Your task to perform on an android device: uninstall "Speedtest by Ookla" Image 0: 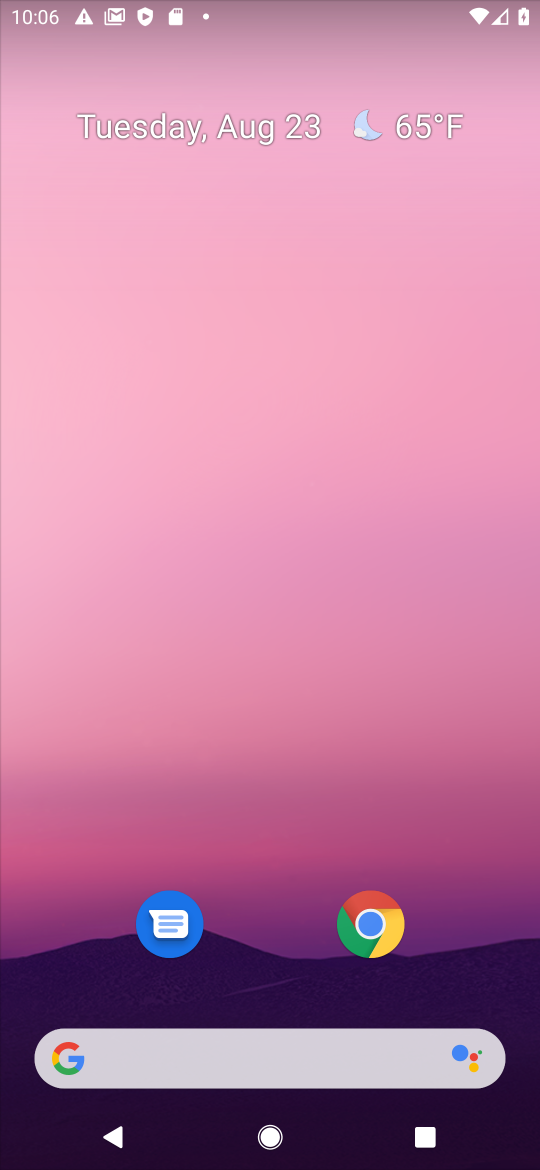
Step 0: drag from (264, 1080) to (146, 27)
Your task to perform on an android device: uninstall "Speedtest by Ookla" Image 1: 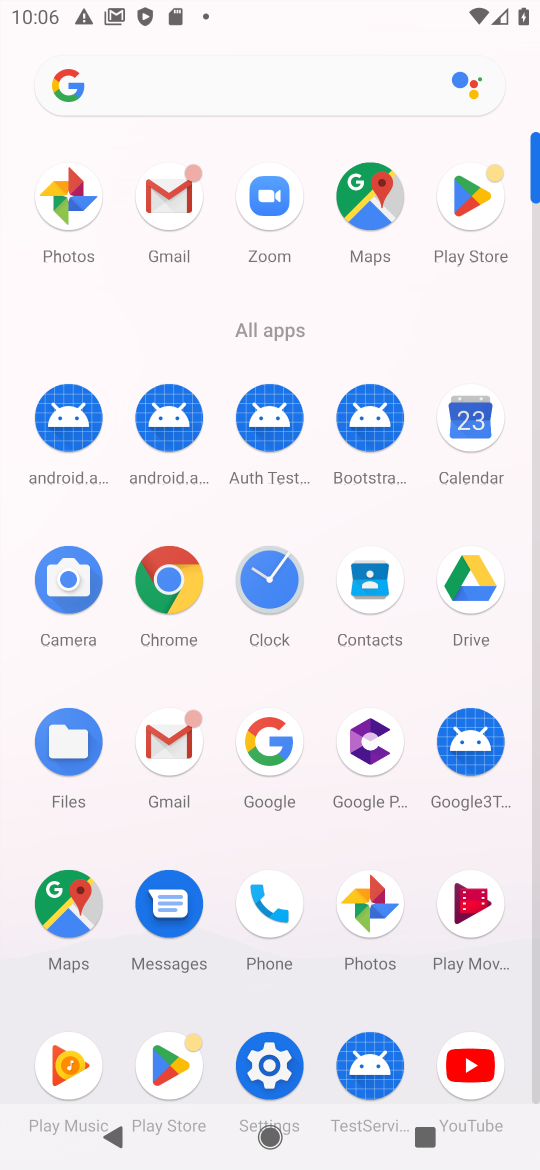
Step 1: click (468, 210)
Your task to perform on an android device: uninstall "Speedtest by Ookla" Image 2: 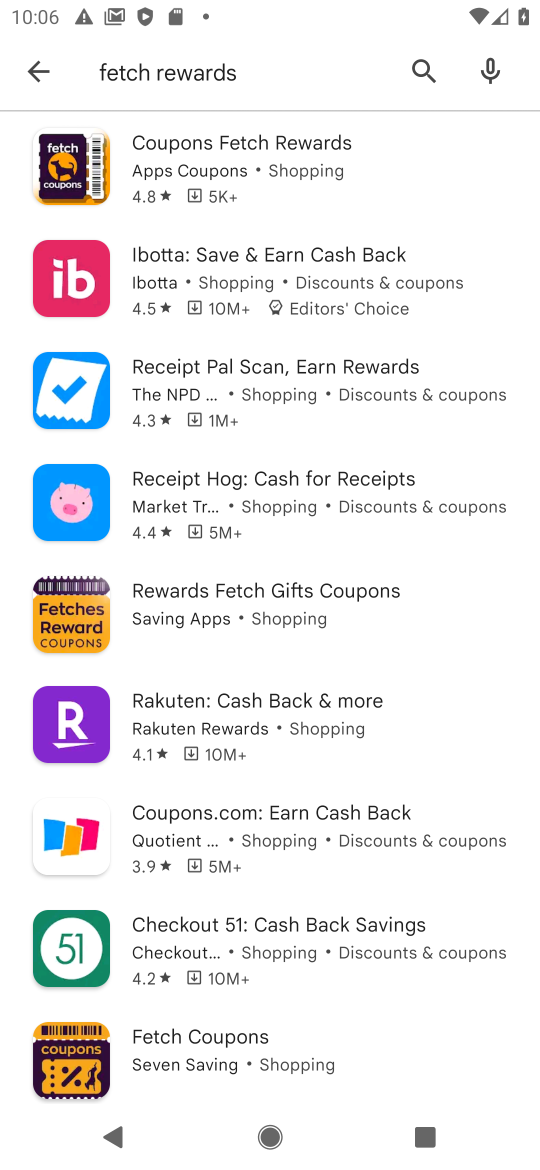
Step 2: click (415, 86)
Your task to perform on an android device: uninstall "Speedtest by Ookla" Image 3: 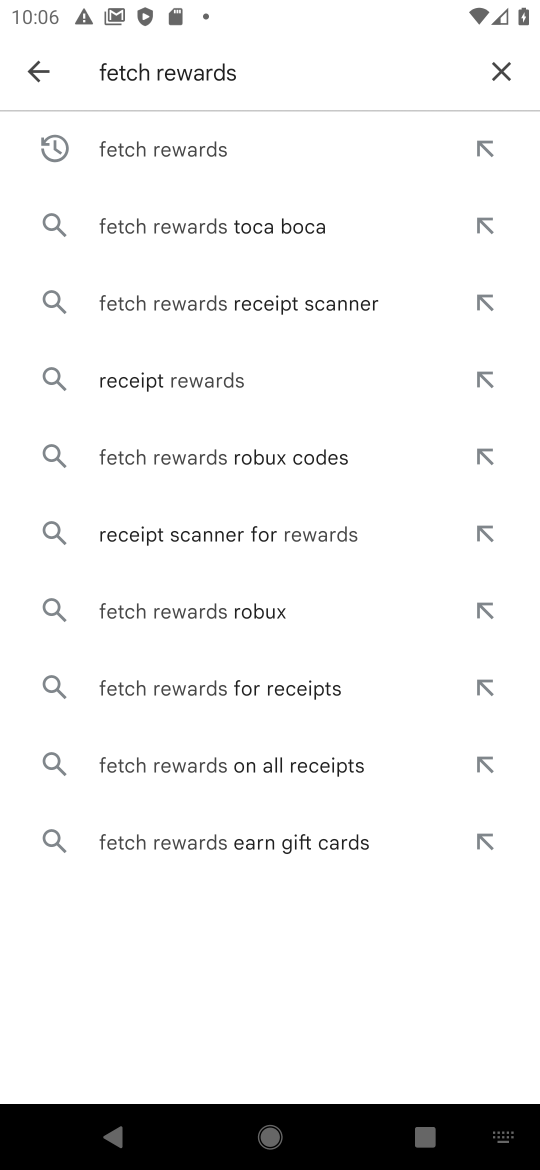
Step 3: click (507, 68)
Your task to perform on an android device: uninstall "Speedtest by Ookla" Image 4: 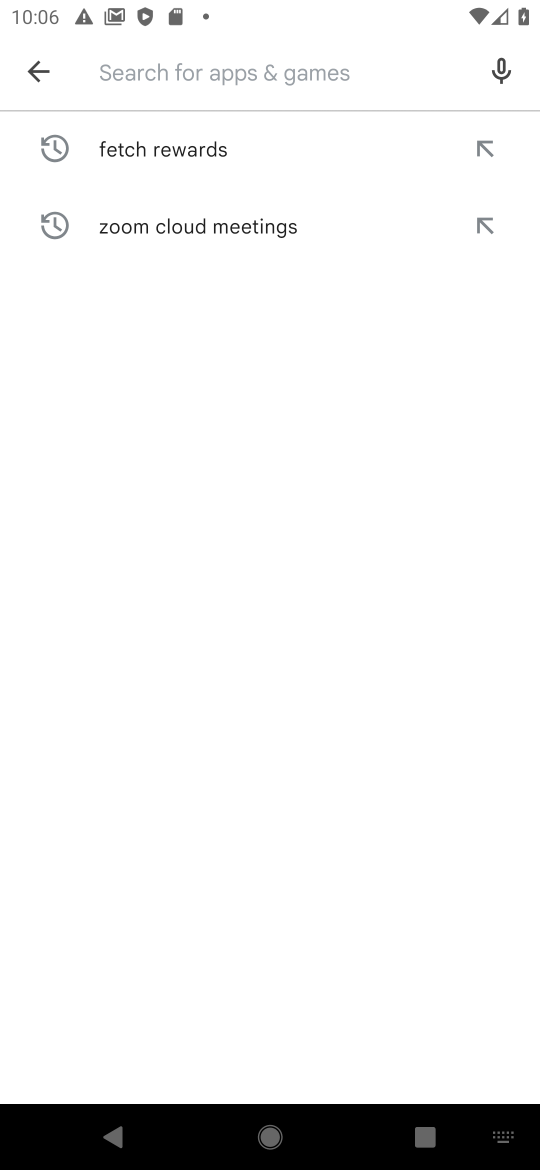
Step 4: type "Speedtest by Ookla"
Your task to perform on an android device: uninstall "Speedtest by Ookla" Image 5: 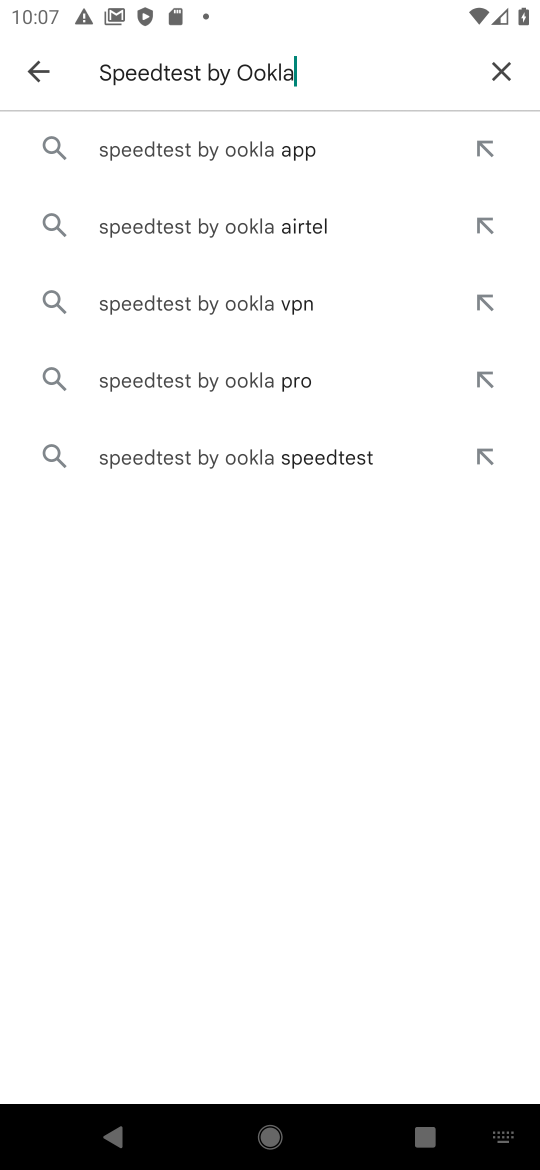
Step 5: click (258, 148)
Your task to perform on an android device: uninstall "Speedtest by Ookla" Image 6: 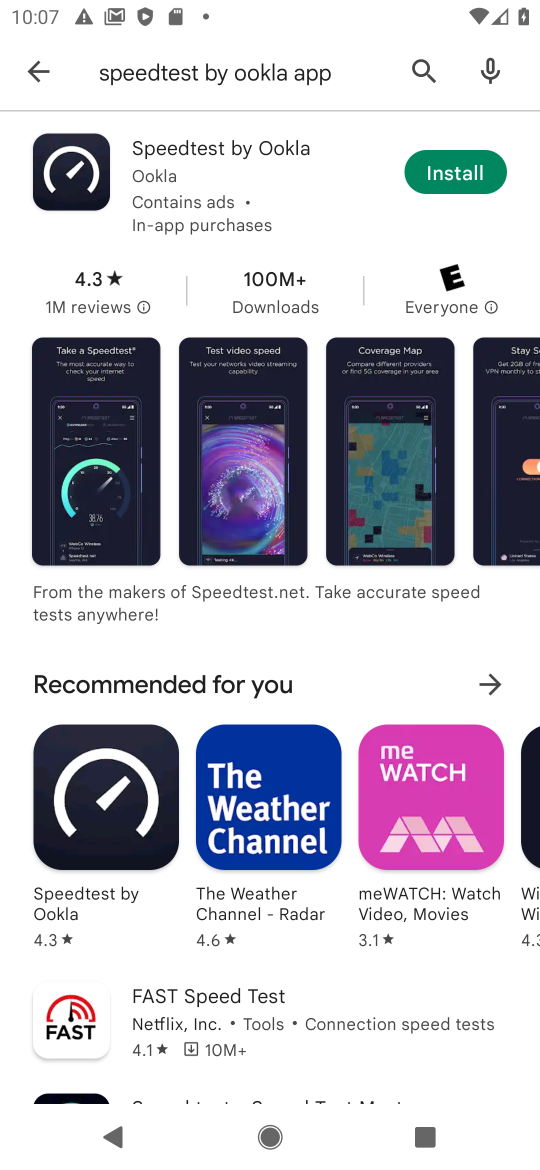
Step 6: task complete